Your task to perform on an android device: Check the news Image 0: 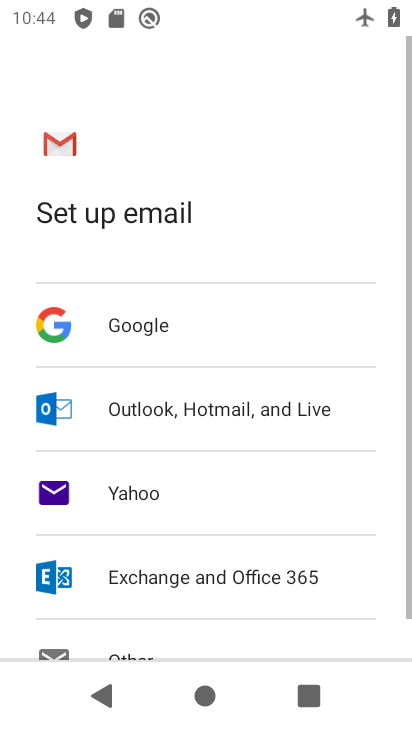
Step 0: press back button
Your task to perform on an android device: Check the news Image 1: 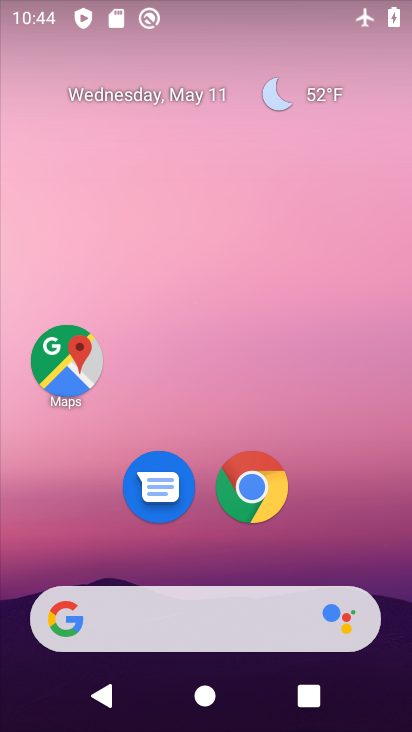
Step 1: drag from (359, 521) to (277, 12)
Your task to perform on an android device: Check the news Image 2: 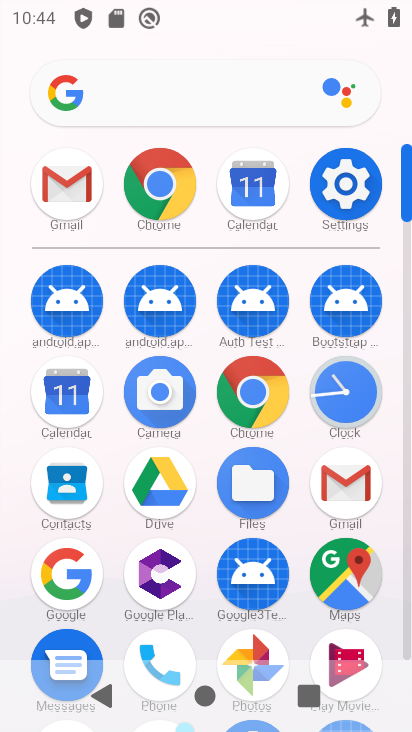
Step 2: click (160, 181)
Your task to perform on an android device: Check the news Image 3: 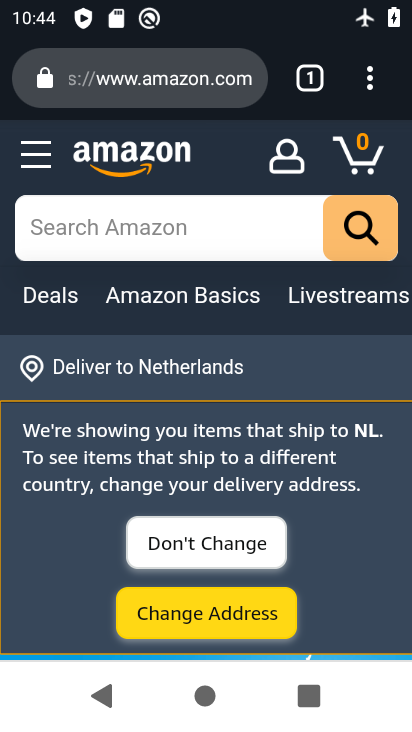
Step 3: click (152, 73)
Your task to perform on an android device: Check the news Image 4: 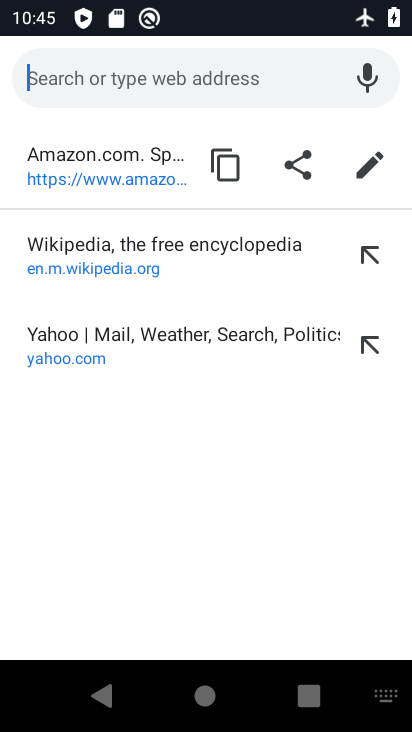
Step 4: type "Check the news"
Your task to perform on an android device: Check the news Image 5: 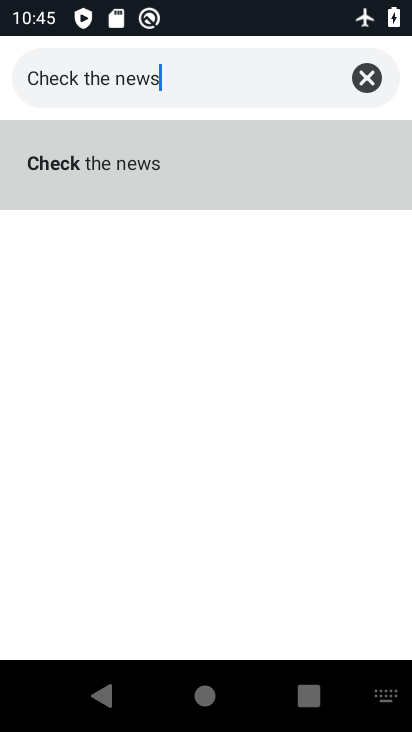
Step 5: click (128, 161)
Your task to perform on an android device: Check the news Image 6: 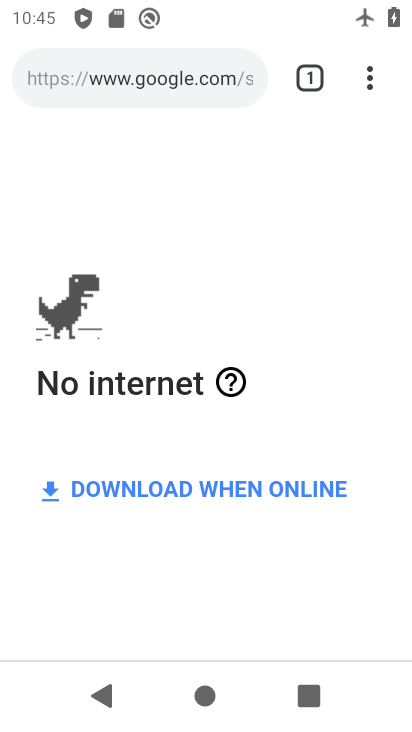
Step 6: task complete